Your task to perform on an android device: Turn on the flashlight Image 0: 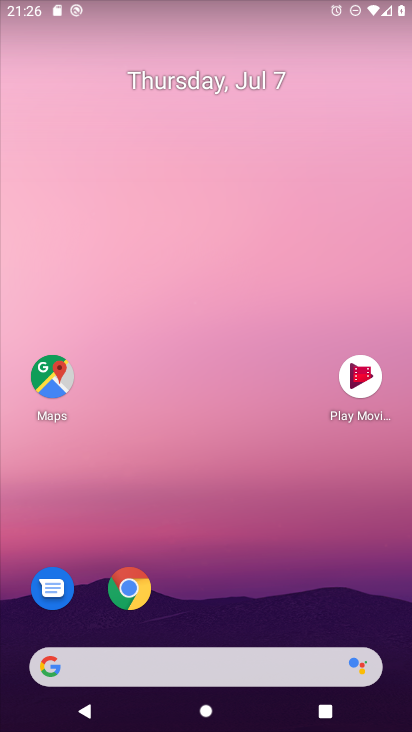
Step 0: drag from (204, 638) to (199, 361)
Your task to perform on an android device: Turn on the flashlight Image 1: 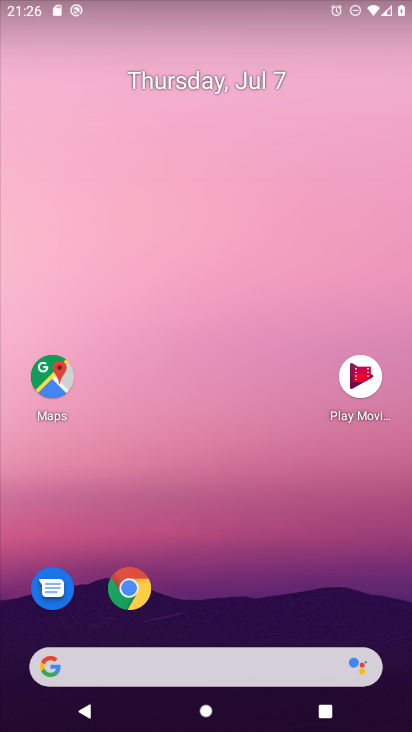
Step 1: drag from (219, 645) to (219, 404)
Your task to perform on an android device: Turn on the flashlight Image 2: 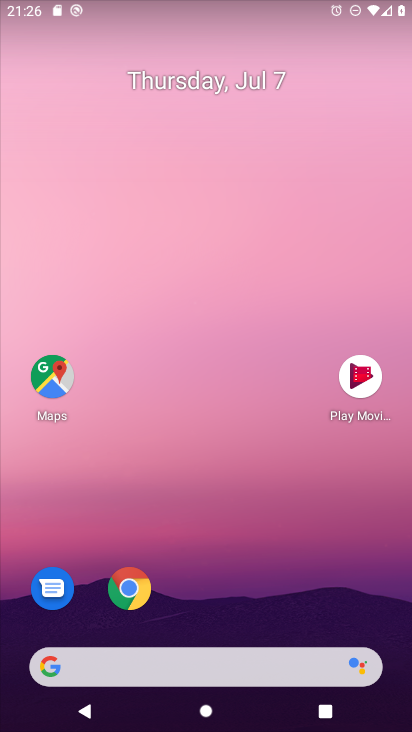
Step 2: drag from (199, 580) to (250, 184)
Your task to perform on an android device: Turn on the flashlight Image 3: 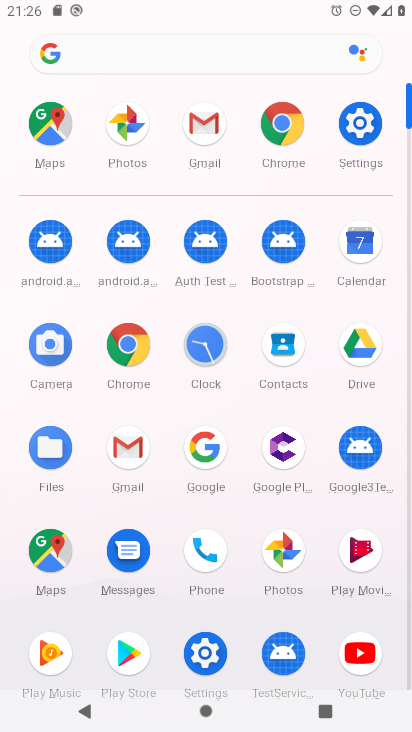
Step 3: click (360, 119)
Your task to perform on an android device: Turn on the flashlight Image 4: 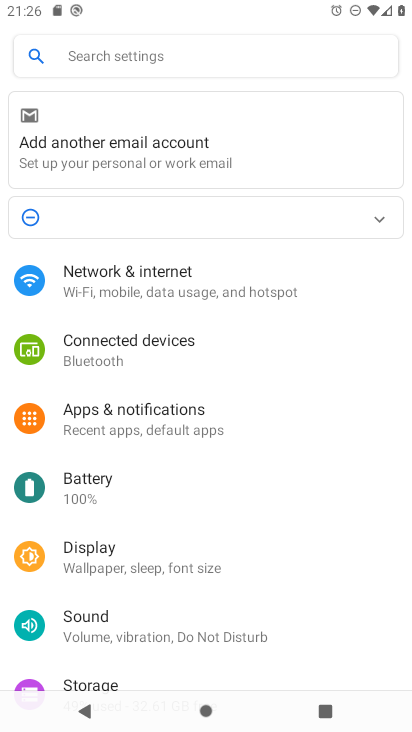
Step 4: task complete